Your task to perform on an android device: uninstall "Google Maps" Image 0: 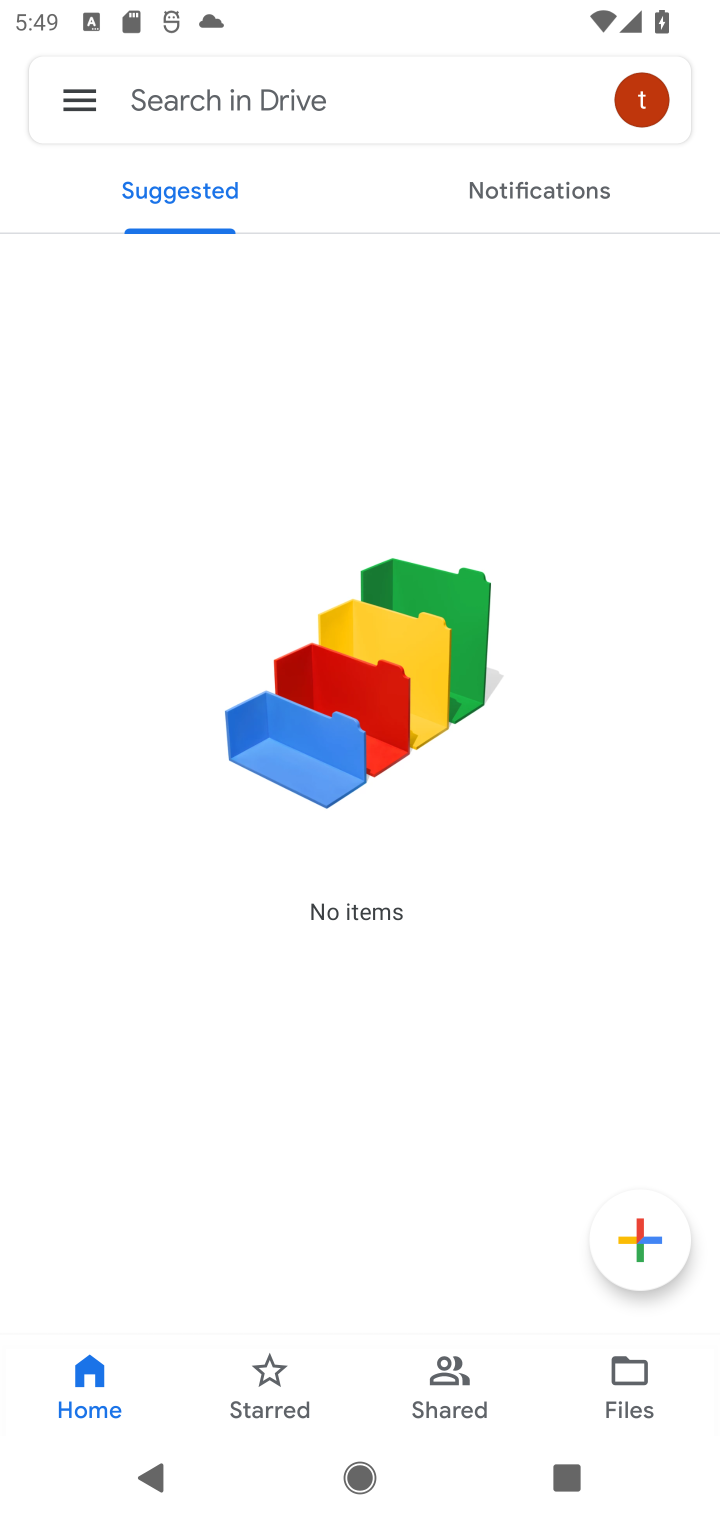
Step 0: press home button
Your task to perform on an android device: uninstall "Google Maps" Image 1: 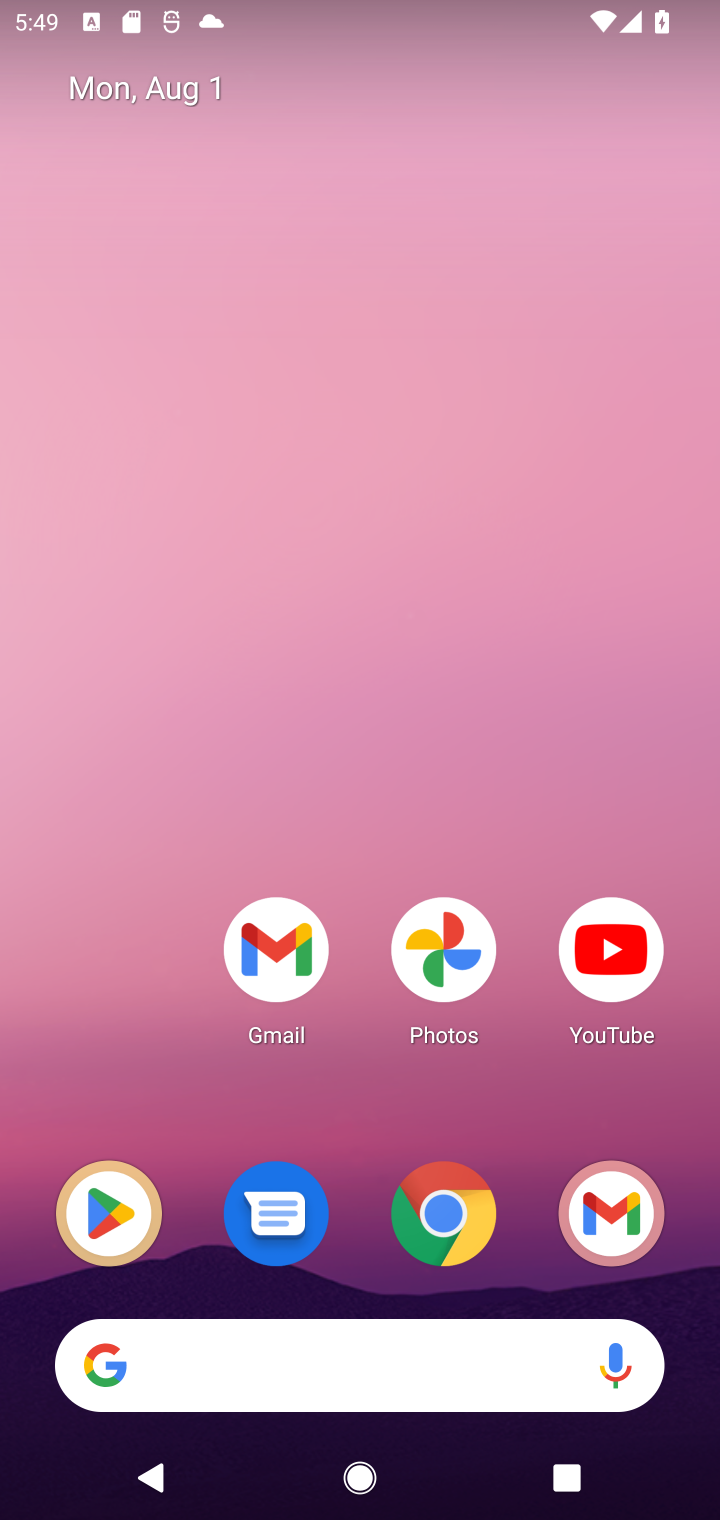
Step 1: drag from (328, 1115) to (18, 19)
Your task to perform on an android device: uninstall "Google Maps" Image 2: 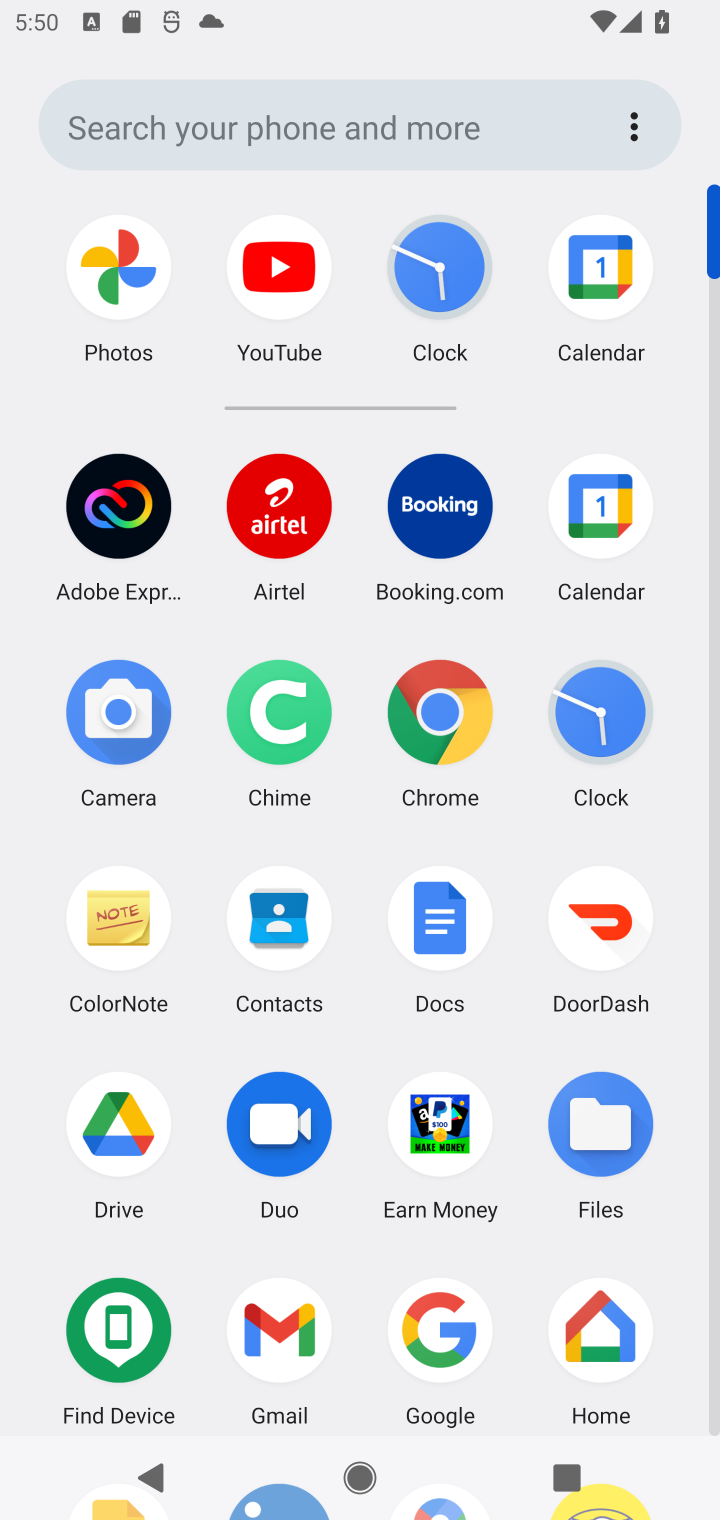
Step 2: drag from (529, 1145) to (541, 124)
Your task to perform on an android device: uninstall "Google Maps" Image 3: 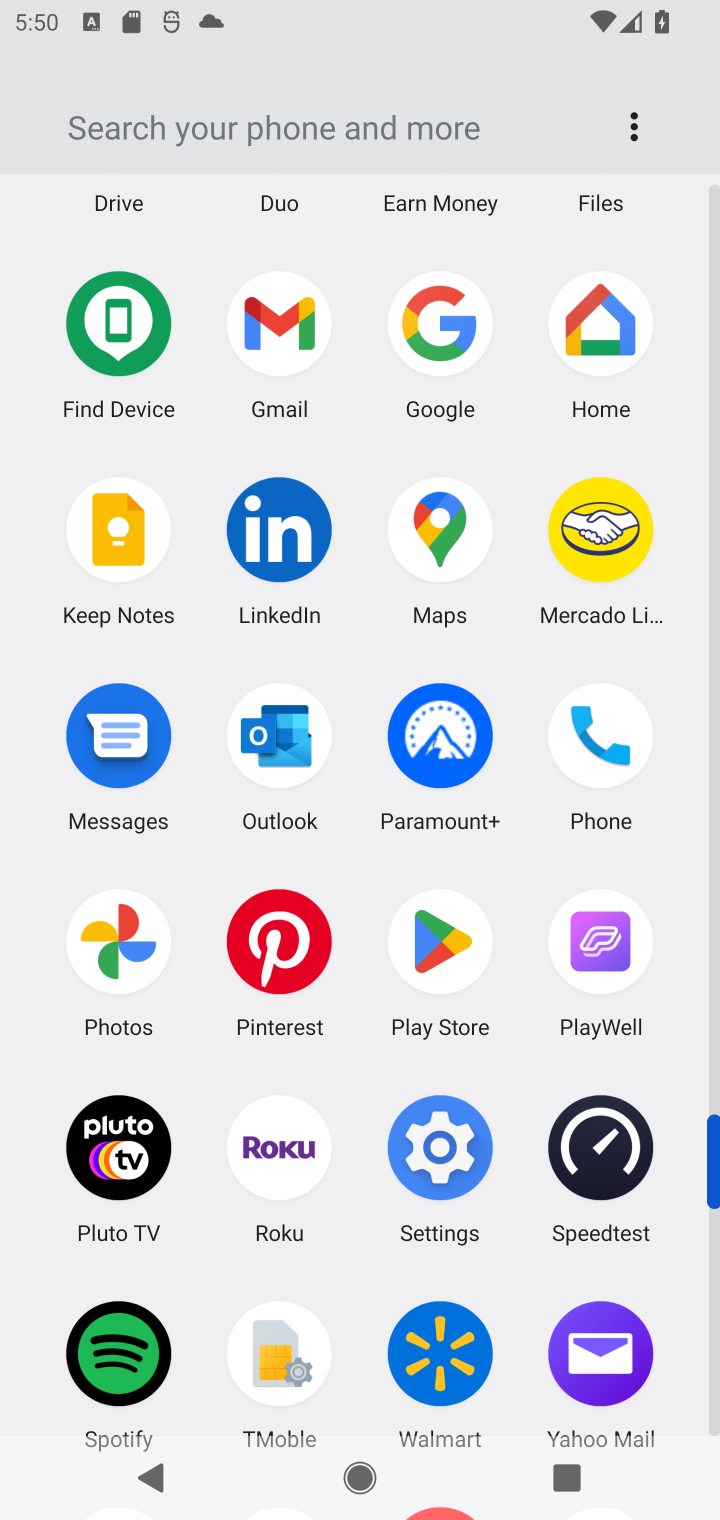
Step 3: click (439, 942)
Your task to perform on an android device: uninstall "Google Maps" Image 4: 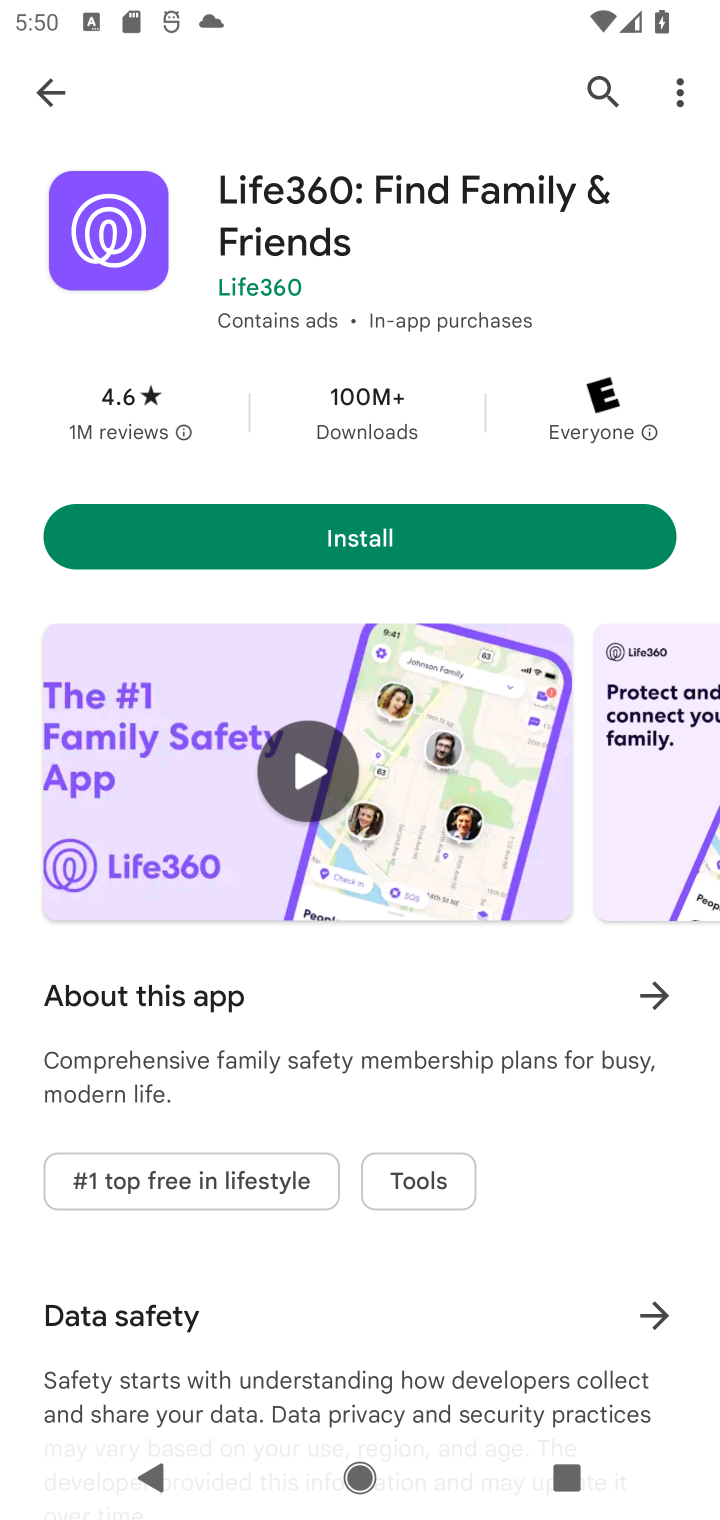
Step 4: click (609, 84)
Your task to perform on an android device: uninstall "Google Maps" Image 5: 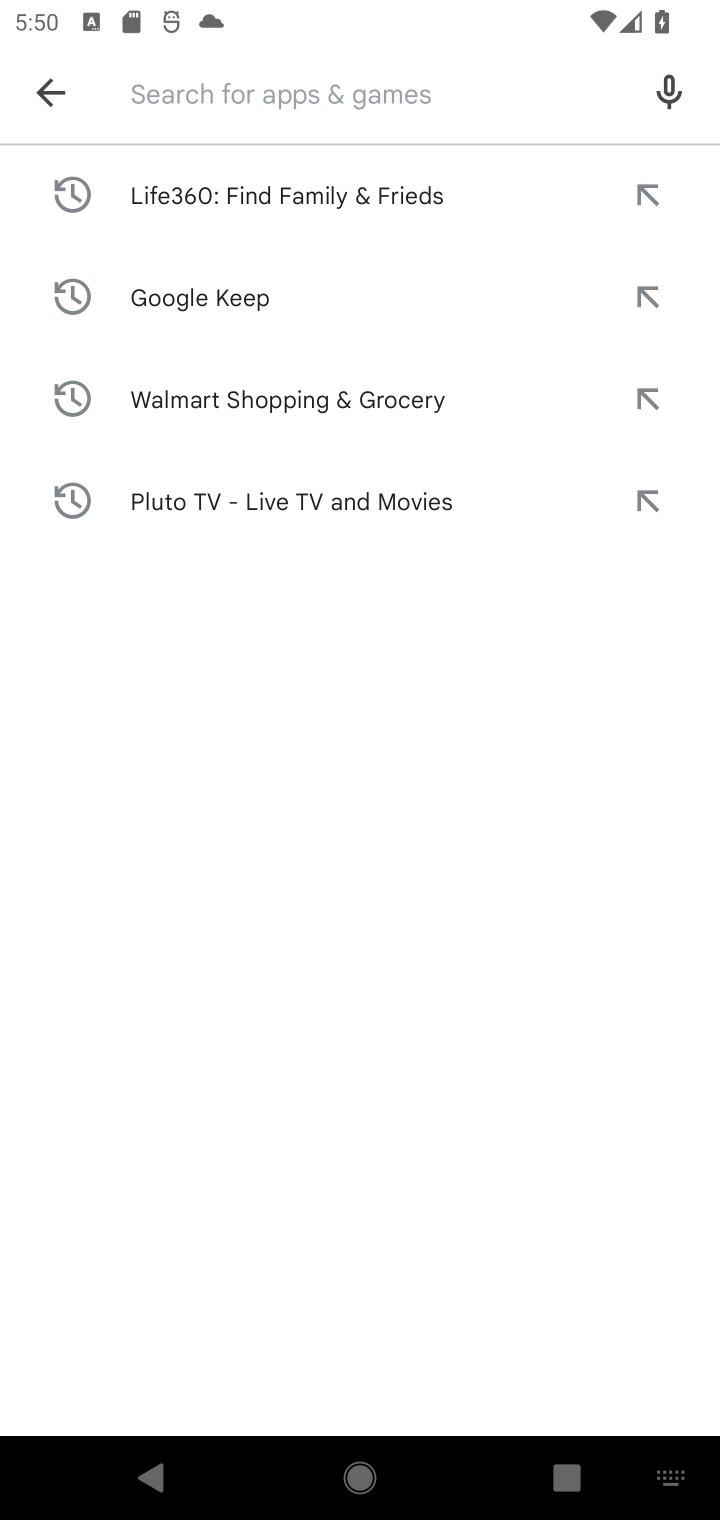
Step 5: type "Google Maps"
Your task to perform on an android device: uninstall "Google Maps" Image 6: 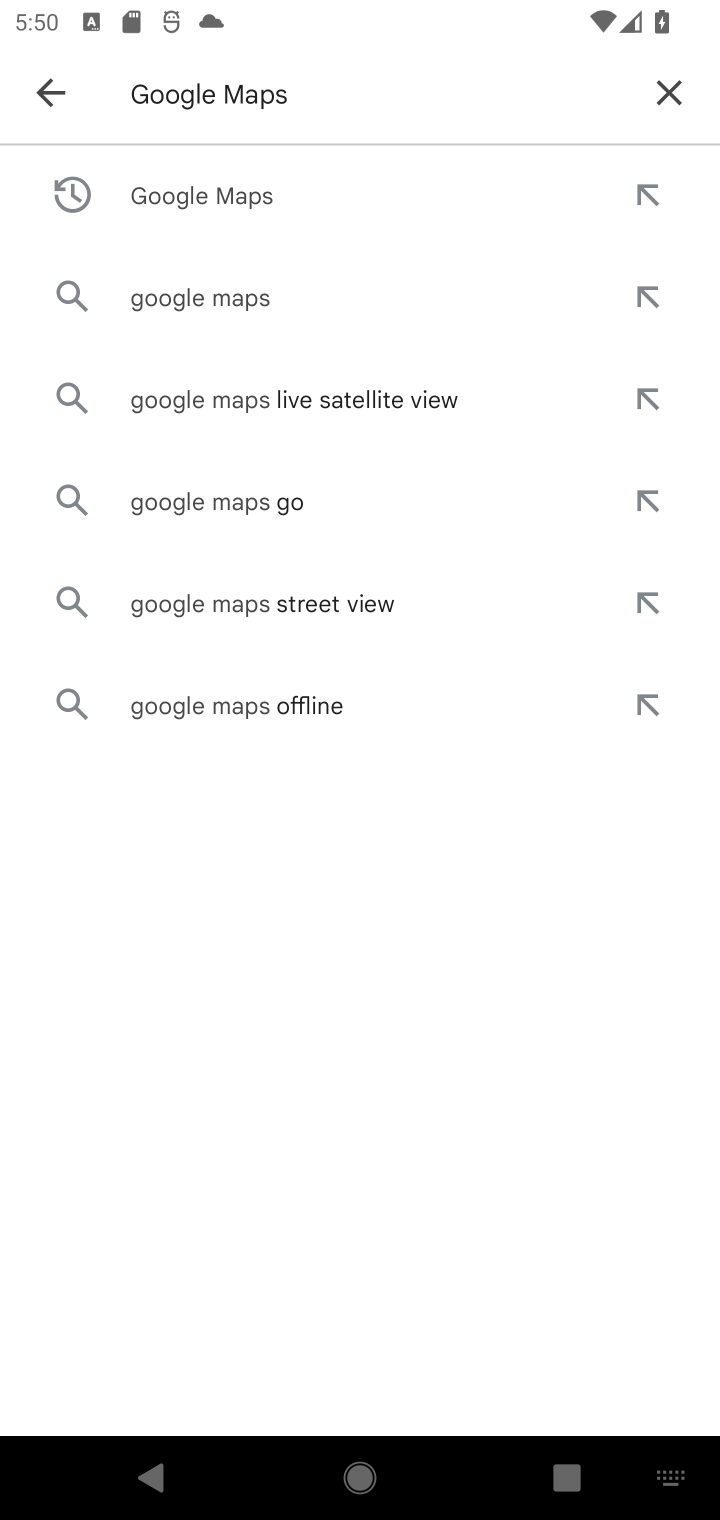
Step 6: press enter
Your task to perform on an android device: uninstall "Google Maps" Image 7: 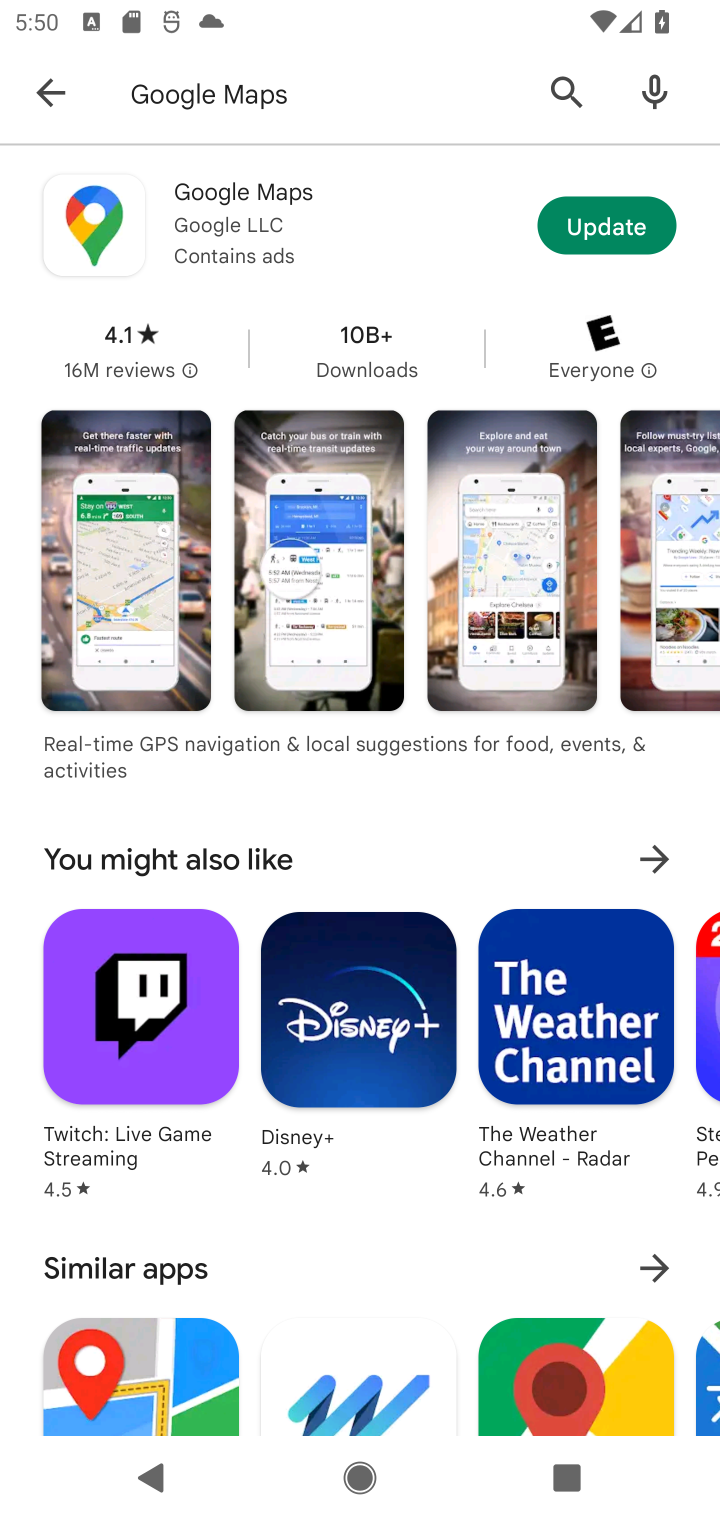
Step 7: task complete